Your task to perform on an android device: Clear the cart on bestbuy.com. Search for dell alienware on bestbuy.com, select the first entry, add it to the cart, then select checkout. Image 0: 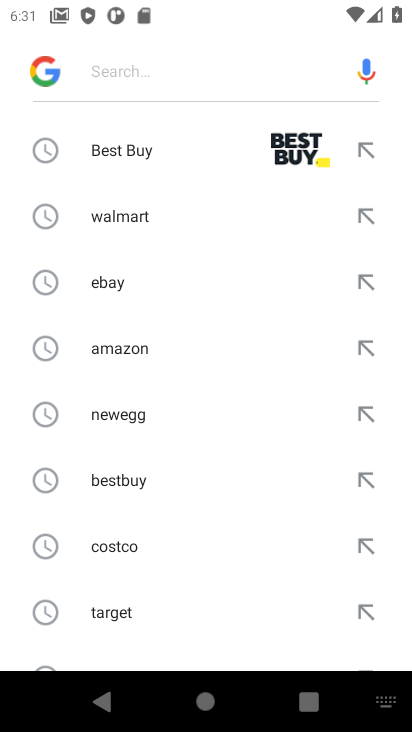
Step 0: click (119, 145)
Your task to perform on an android device: Clear the cart on bestbuy.com. Search for dell alienware on bestbuy.com, select the first entry, add it to the cart, then select checkout. Image 1: 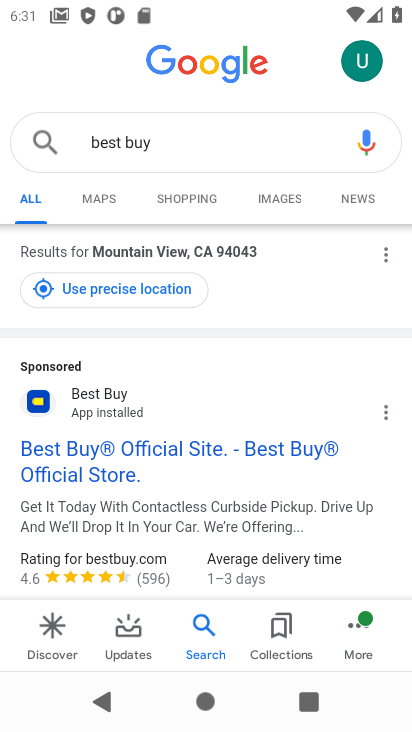
Step 1: drag from (196, 451) to (193, 246)
Your task to perform on an android device: Clear the cart on bestbuy.com. Search for dell alienware on bestbuy.com, select the first entry, add it to the cart, then select checkout. Image 2: 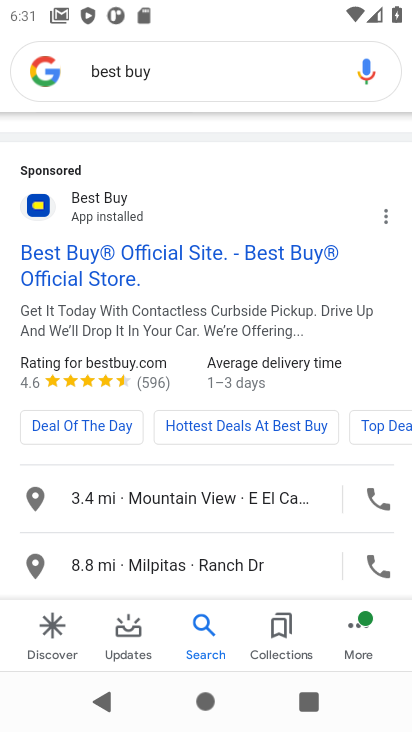
Step 2: drag from (193, 393) to (195, 178)
Your task to perform on an android device: Clear the cart on bestbuy.com. Search for dell alienware on bestbuy.com, select the first entry, add it to the cart, then select checkout. Image 3: 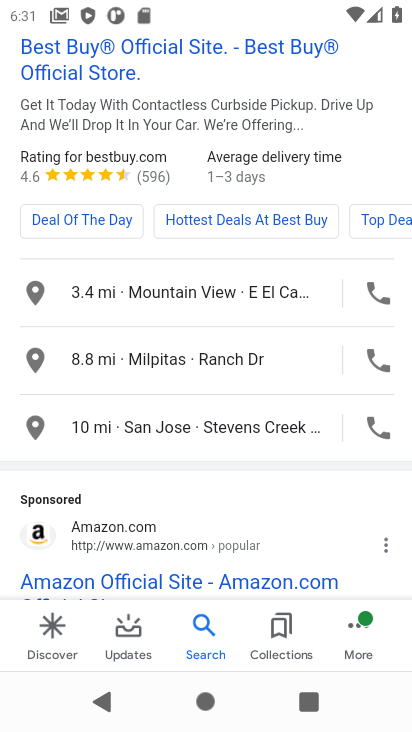
Step 3: drag from (157, 519) to (154, 206)
Your task to perform on an android device: Clear the cart on bestbuy.com. Search for dell alienware on bestbuy.com, select the first entry, add it to the cart, then select checkout. Image 4: 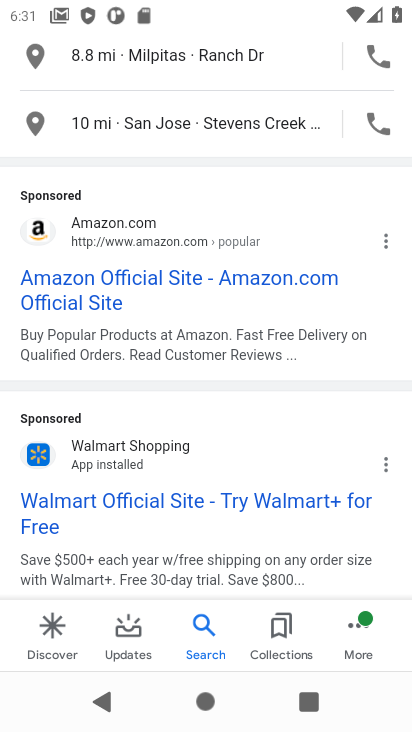
Step 4: drag from (171, 447) to (162, 196)
Your task to perform on an android device: Clear the cart on bestbuy.com. Search for dell alienware on bestbuy.com, select the first entry, add it to the cart, then select checkout. Image 5: 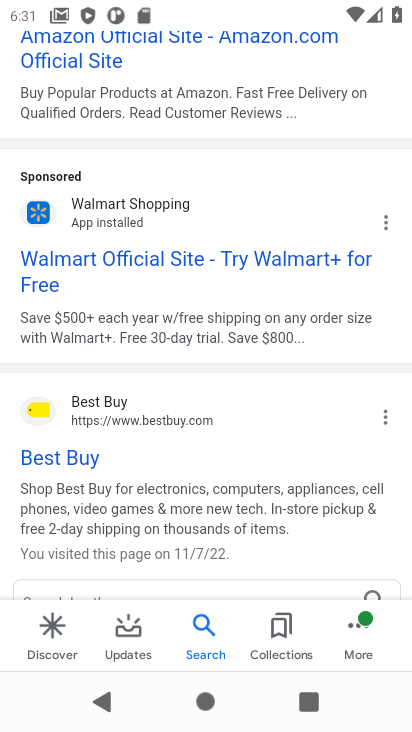
Step 5: click (60, 399)
Your task to perform on an android device: Clear the cart on bestbuy.com. Search for dell alienware on bestbuy.com, select the first entry, add it to the cart, then select checkout. Image 6: 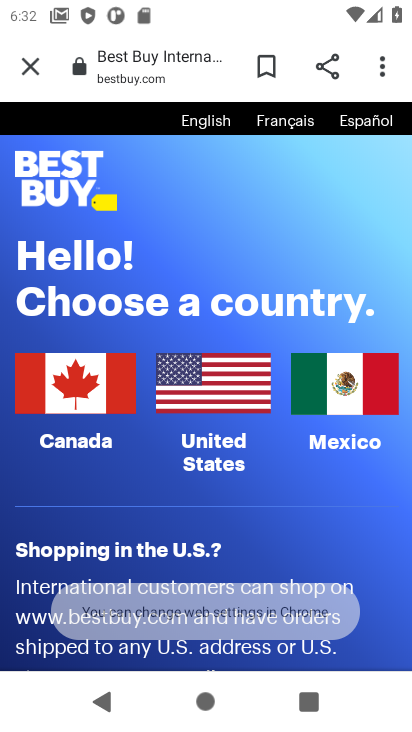
Step 6: click (218, 388)
Your task to perform on an android device: Clear the cart on bestbuy.com. Search for dell alienware on bestbuy.com, select the first entry, add it to the cart, then select checkout. Image 7: 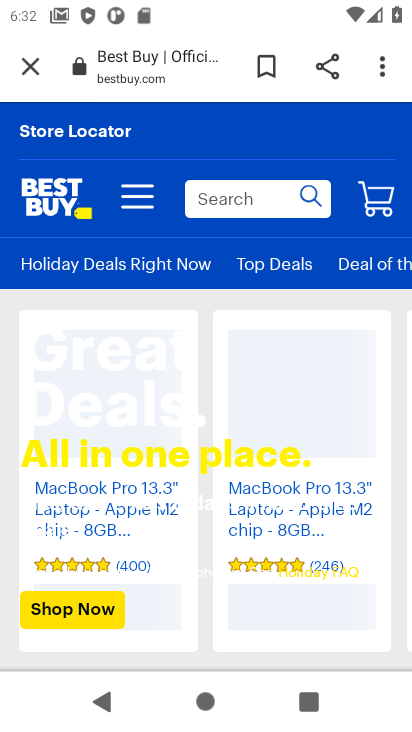
Step 7: click (373, 206)
Your task to perform on an android device: Clear the cart on bestbuy.com. Search for dell alienware on bestbuy.com, select the first entry, add it to the cart, then select checkout. Image 8: 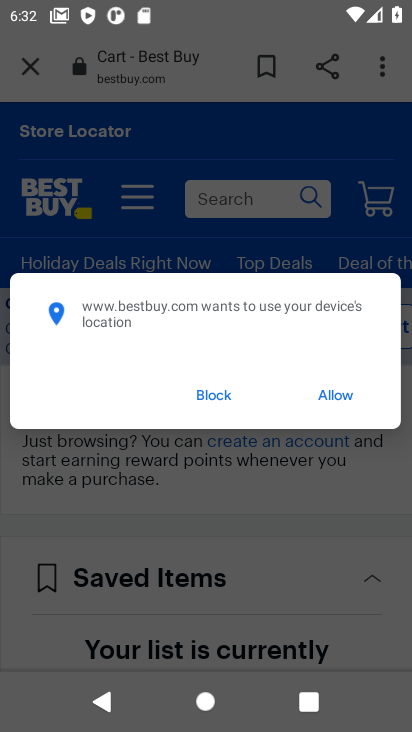
Step 8: click (204, 188)
Your task to perform on an android device: Clear the cart on bestbuy.com. Search for dell alienware on bestbuy.com, select the first entry, add it to the cart, then select checkout. Image 9: 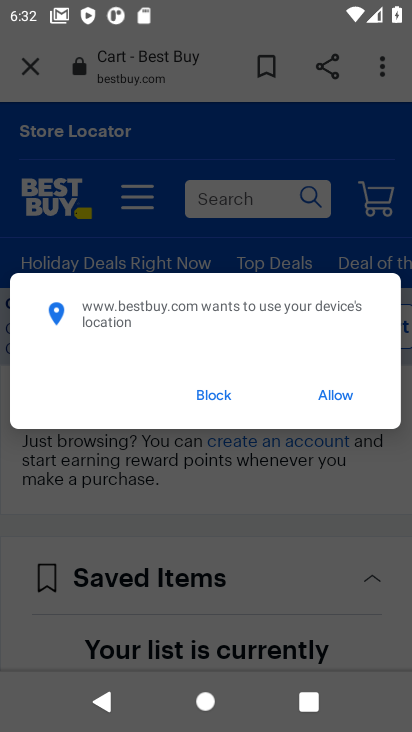
Step 9: click (203, 389)
Your task to perform on an android device: Clear the cart on bestbuy.com. Search for dell alienware on bestbuy.com, select the first entry, add it to the cart, then select checkout. Image 10: 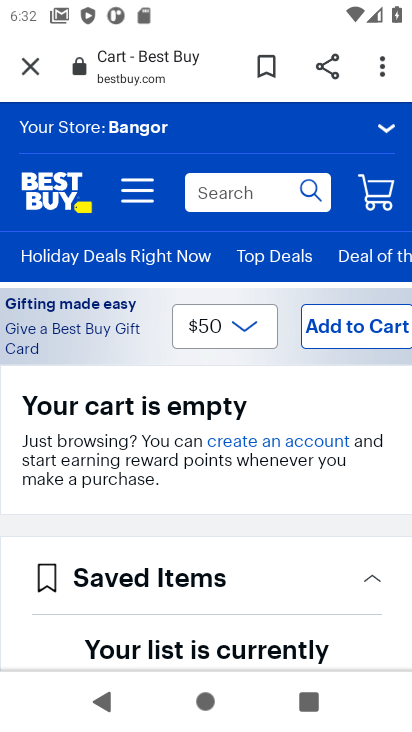
Step 10: click (203, 194)
Your task to perform on an android device: Clear the cart on bestbuy.com. Search for dell alienware on bestbuy.com, select the first entry, add it to the cart, then select checkout. Image 11: 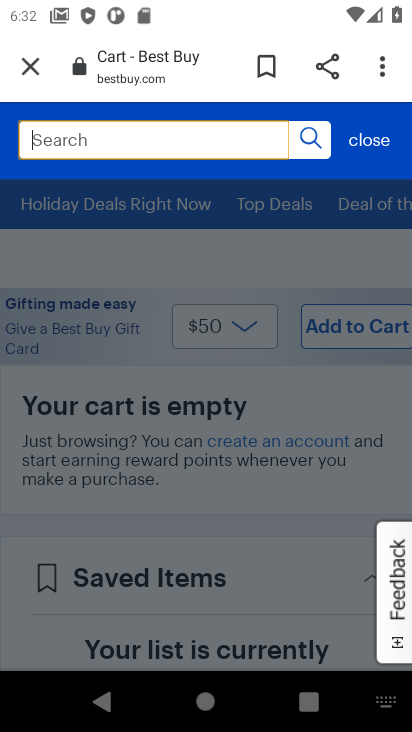
Step 11: type "dell alienware"
Your task to perform on an android device: Clear the cart on bestbuy.com. Search for dell alienware on bestbuy.com, select the first entry, add it to the cart, then select checkout. Image 12: 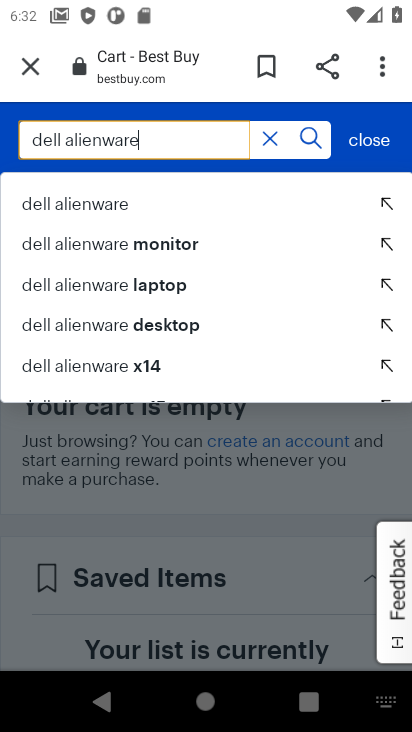
Step 12: click (110, 205)
Your task to perform on an android device: Clear the cart on bestbuy.com. Search for dell alienware on bestbuy.com, select the first entry, add it to the cart, then select checkout. Image 13: 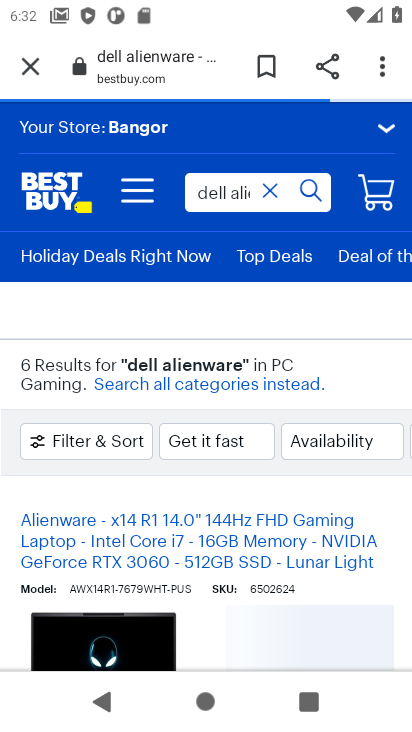
Step 13: drag from (167, 485) to (152, 318)
Your task to perform on an android device: Clear the cart on bestbuy.com. Search for dell alienware on bestbuy.com, select the first entry, add it to the cart, then select checkout. Image 14: 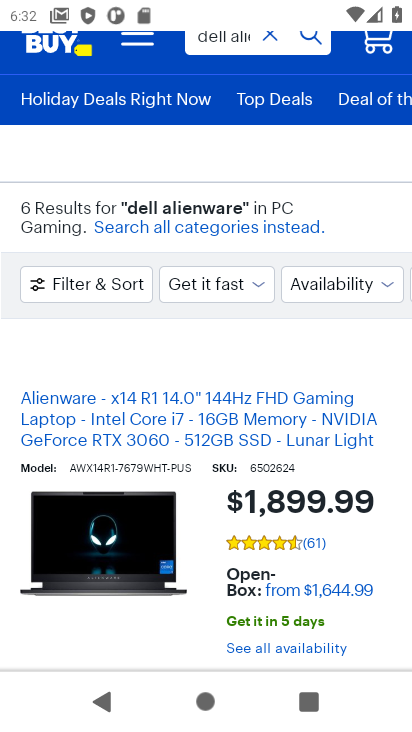
Step 14: drag from (153, 429) to (161, 304)
Your task to perform on an android device: Clear the cart on bestbuy.com. Search for dell alienware on bestbuy.com, select the first entry, add it to the cart, then select checkout. Image 15: 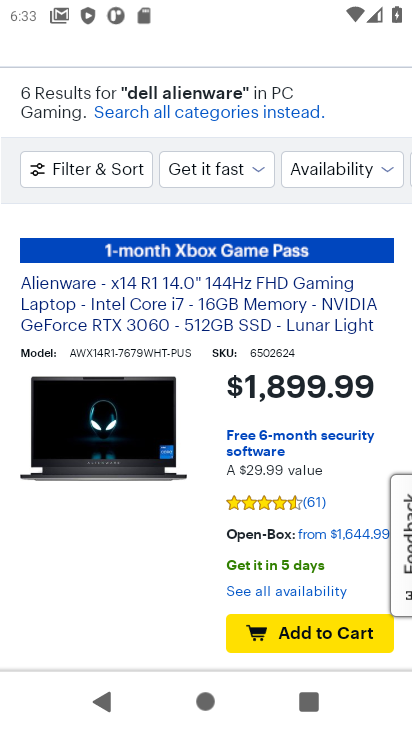
Step 15: click (300, 641)
Your task to perform on an android device: Clear the cart on bestbuy.com. Search for dell alienware on bestbuy.com, select the first entry, add it to the cart, then select checkout. Image 16: 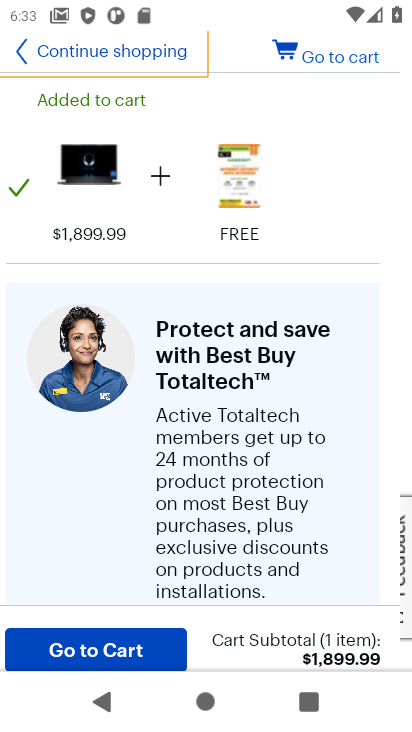
Step 16: click (338, 59)
Your task to perform on an android device: Clear the cart on bestbuy.com. Search for dell alienware on bestbuy.com, select the first entry, add it to the cart, then select checkout. Image 17: 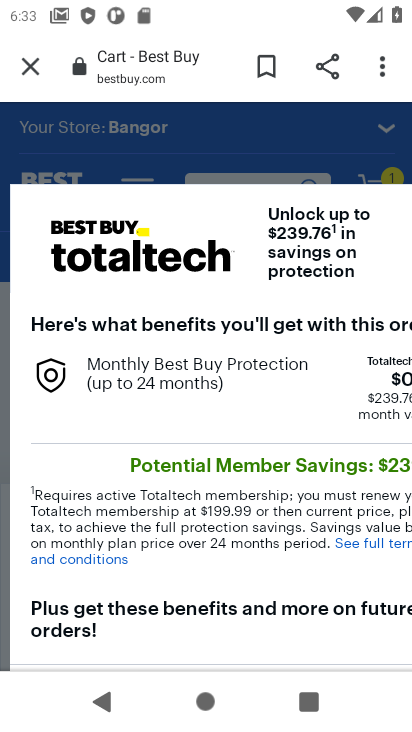
Step 17: click (332, 153)
Your task to perform on an android device: Clear the cart on bestbuy.com. Search for dell alienware on bestbuy.com, select the first entry, add it to the cart, then select checkout. Image 18: 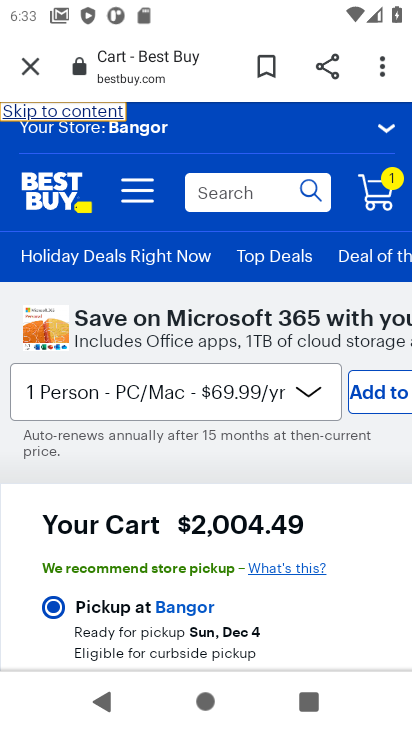
Step 18: drag from (306, 473) to (316, 180)
Your task to perform on an android device: Clear the cart on bestbuy.com. Search for dell alienware on bestbuy.com, select the first entry, add it to the cart, then select checkout. Image 19: 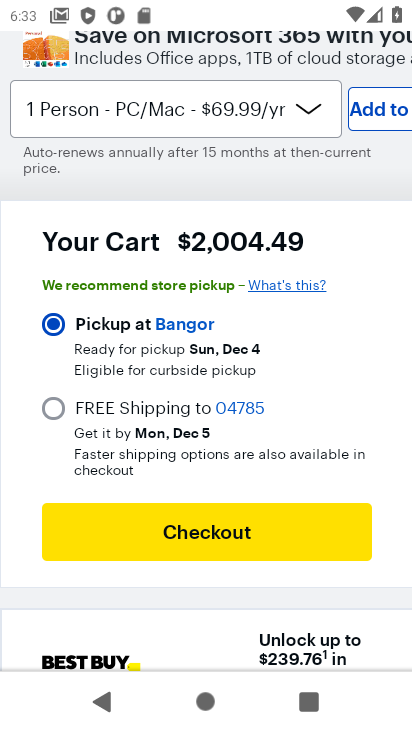
Step 19: click (165, 531)
Your task to perform on an android device: Clear the cart on bestbuy.com. Search for dell alienware on bestbuy.com, select the first entry, add it to the cart, then select checkout. Image 20: 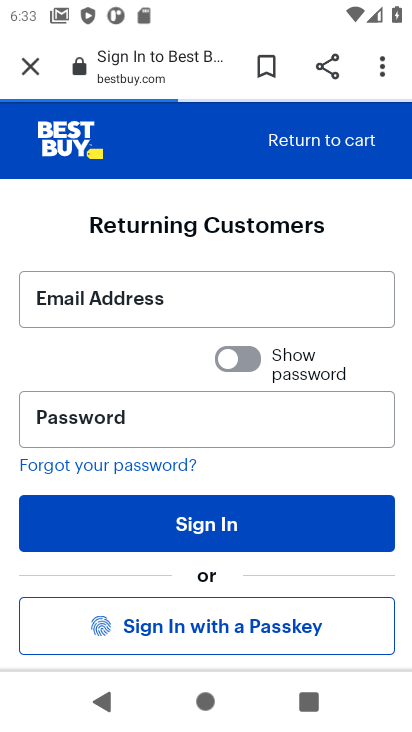
Step 20: task complete